Your task to perform on an android device: open a new tab in the chrome app Image 0: 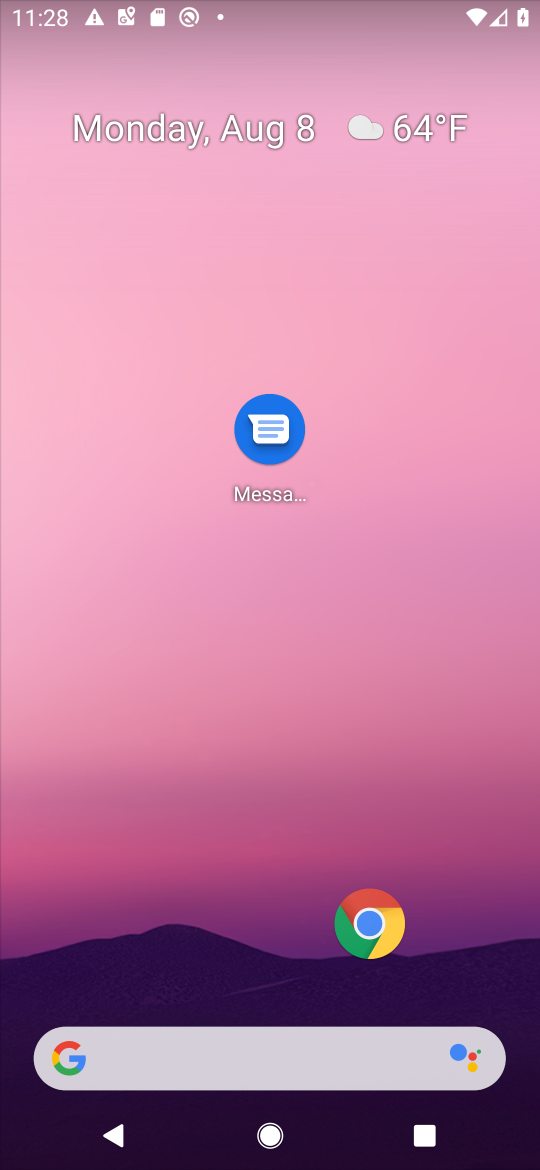
Step 0: click (375, 912)
Your task to perform on an android device: open a new tab in the chrome app Image 1: 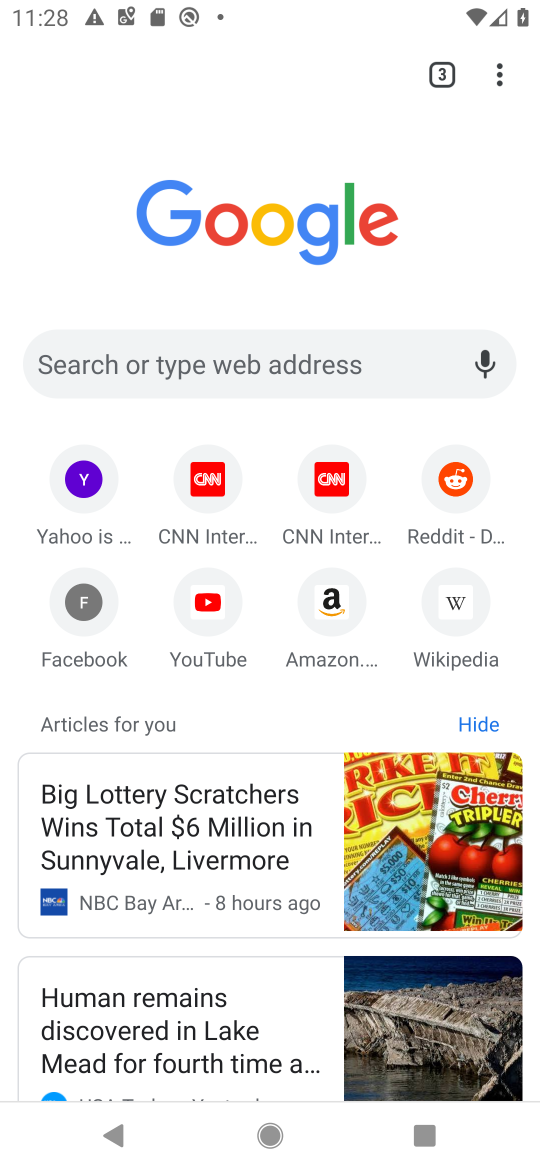
Step 1: click (503, 74)
Your task to perform on an android device: open a new tab in the chrome app Image 2: 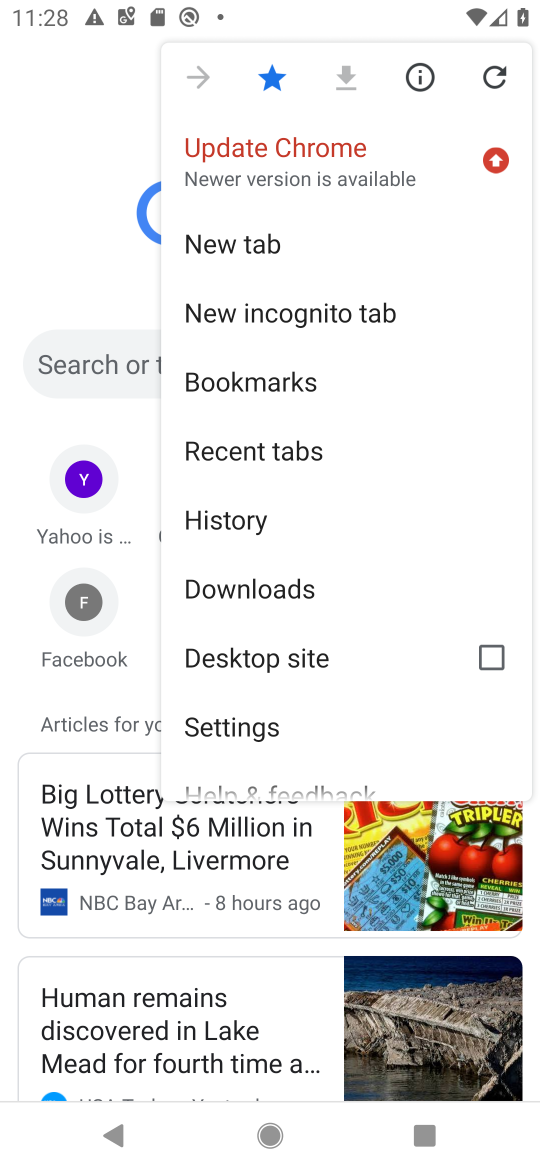
Step 2: click (228, 241)
Your task to perform on an android device: open a new tab in the chrome app Image 3: 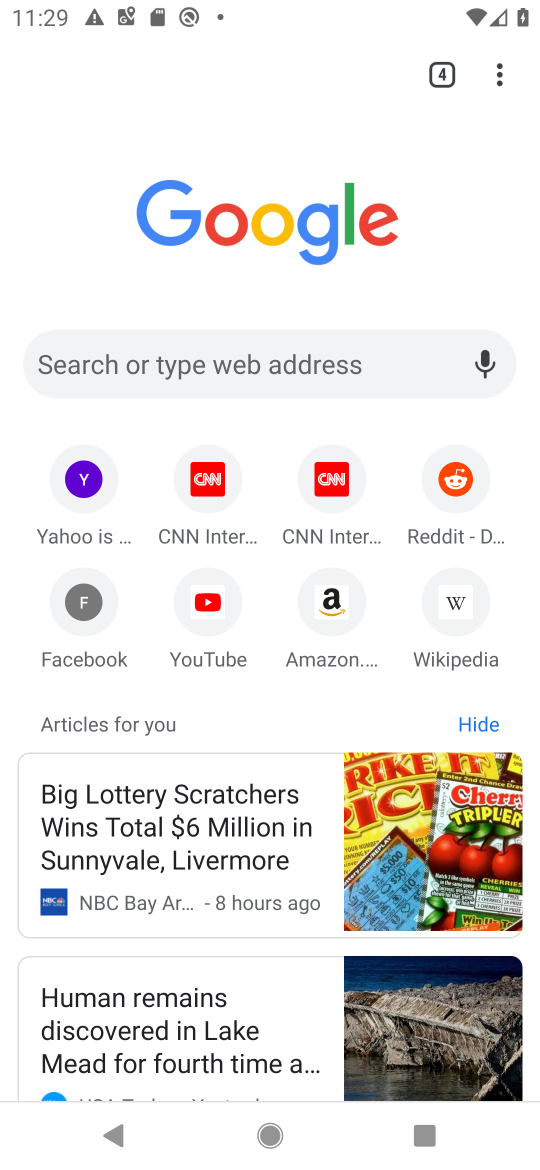
Step 3: task complete